Your task to perform on an android device: turn on bluetooth scan Image 0: 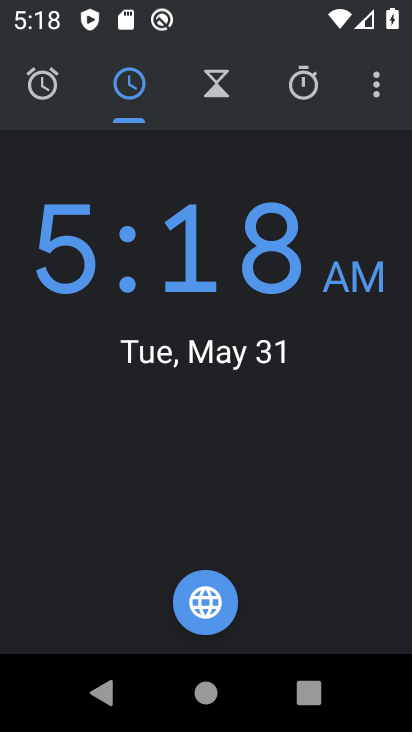
Step 0: press home button
Your task to perform on an android device: turn on bluetooth scan Image 1: 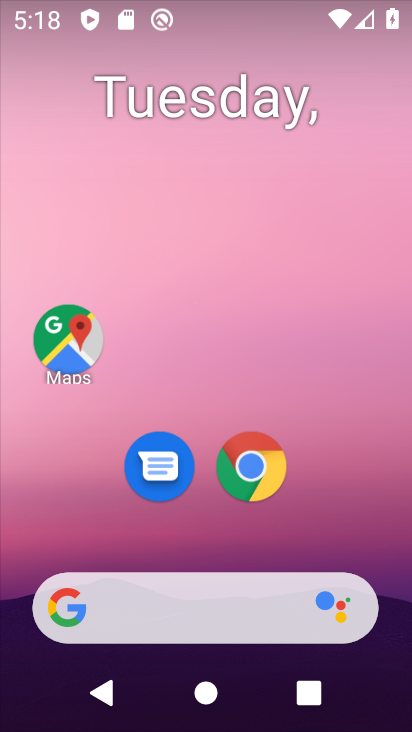
Step 1: click (275, 469)
Your task to perform on an android device: turn on bluetooth scan Image 2: 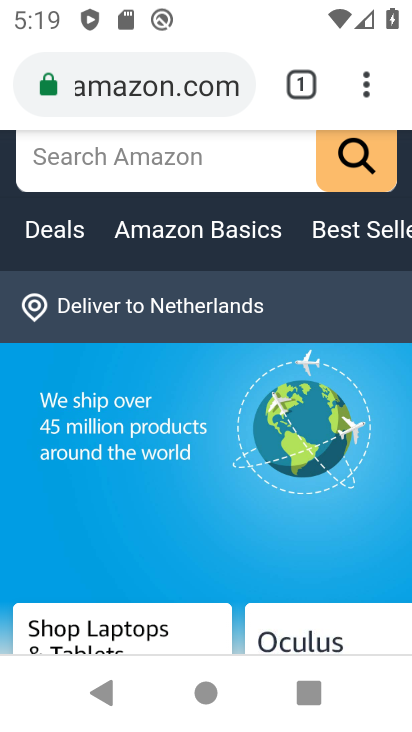
Step 2: drag from (379, 78) to (193, 527)
Your task to perform on an android device: turn on bluetooth scan Image 3: 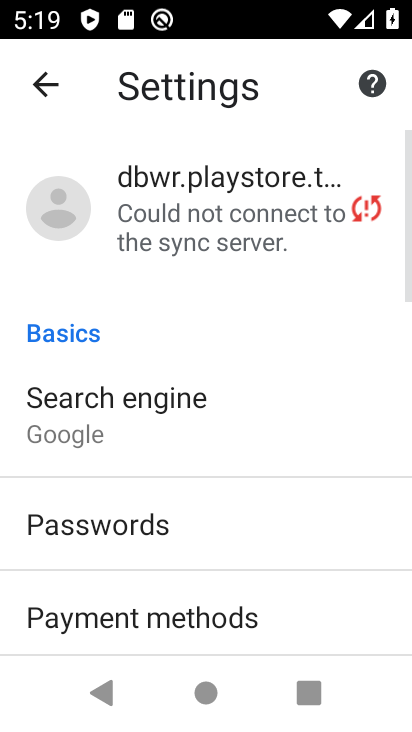
Step 3: drag from (221, 585) to (240, 98)
Your task to perform on an android device: turn on bluetooth scan Image 4: 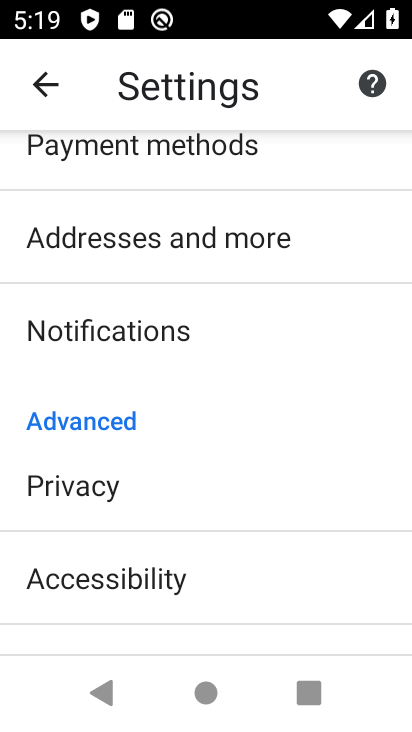
Step 4: press home button
Your task to perform on an android device: turn on bluetooth scan Image 5: 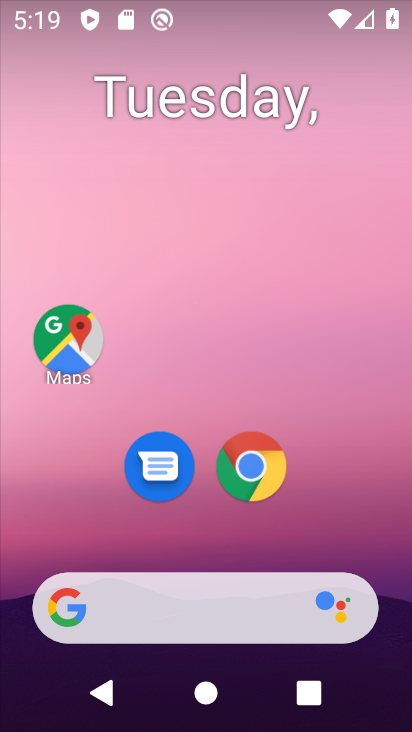
Step 5: drag from (356, 392) to (379, 161)
Your task to perform on an android device: turn on bluetooth scan Image 6: 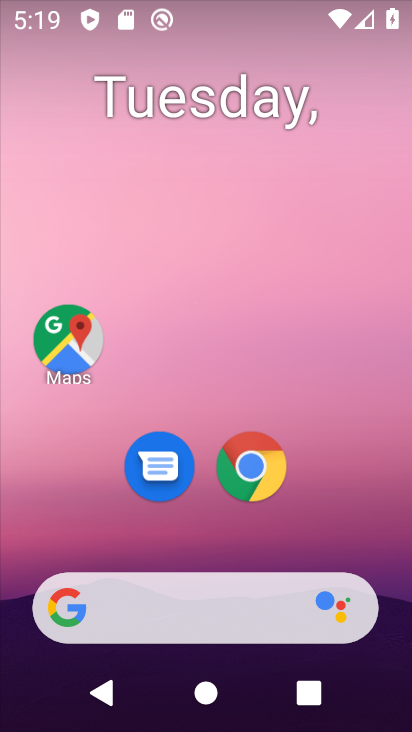
Step 6: drag from (393, 617) to (369, 221)
Your task to perform on an android device: turn on bluetooth scan Image 7: 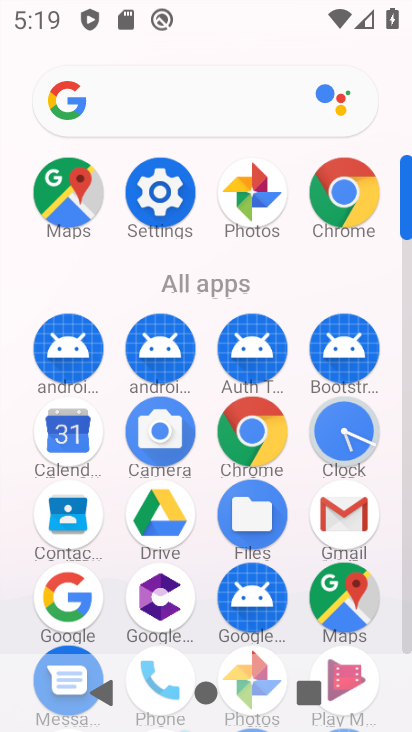
Step 7: click (150, 187)
Your task to perform on an android device: turn on bluetooth scan Image 8: 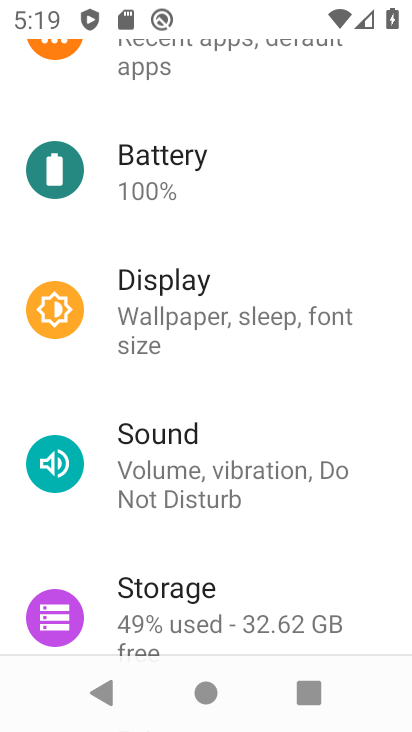
Step 8: drag from (244, 569) to (250, 138)
Your task to perform on an android device: turn on bluetooth scan Image 9: 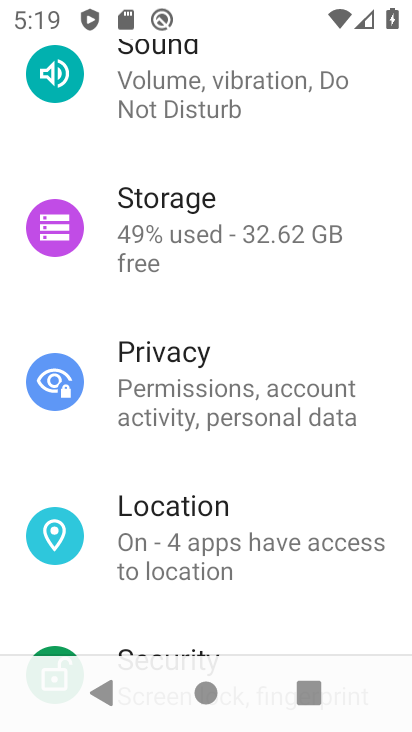
Step 9: drag from (250, 442) to (266, 197)
Your task to perform on an android device: turn on bluetooth scan Image 10: 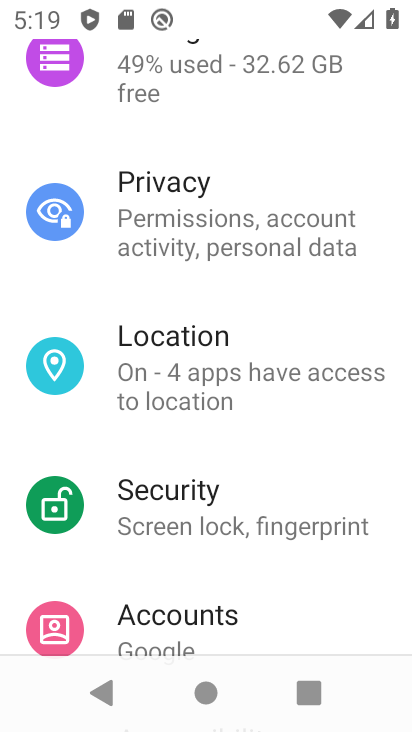
Step 10: drag from (276, 461) to (294, 210)
Your task to perform on an android device: turn on bluetooth scan Image 11: 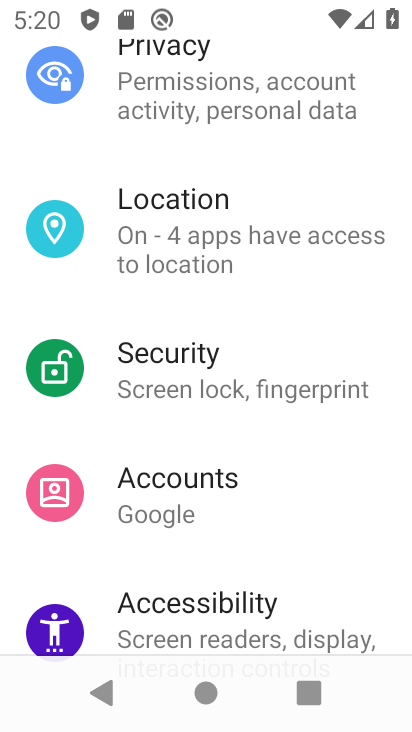
Step 11: click (182, 250)
Your task to perform on an android device: turn on bluetooth scan Image 12: 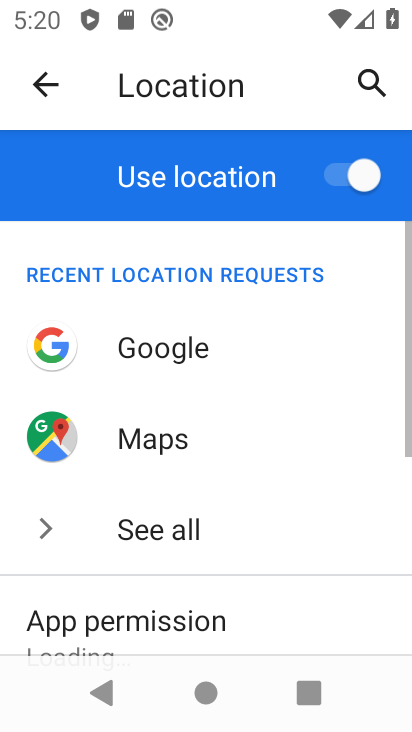
Step 12: drag from (214, 589) to (226, 206)
Your task to perform on an android device: turn on bluetooth scan Image 13: 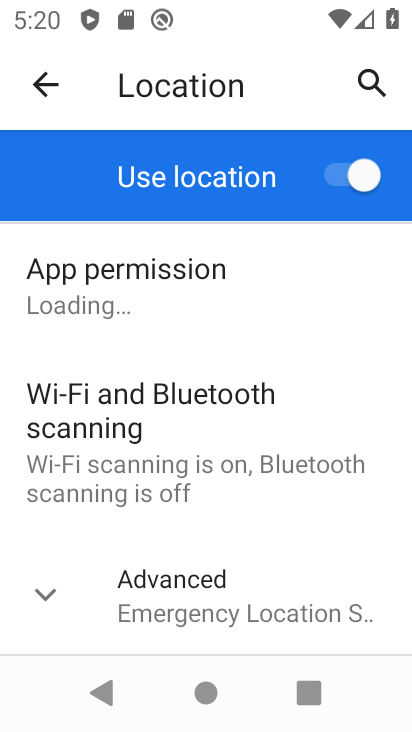
Step 13: click (191, 419)
Your task to perform on an android device: turn on bluetooth scan Image 14: 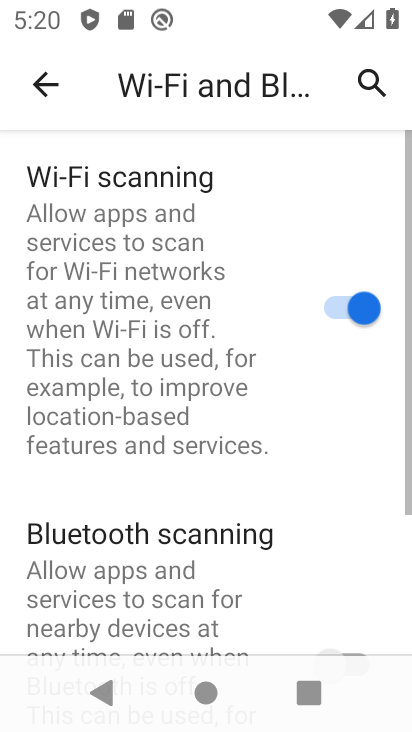
Step 14: drag from (210, 492) to (221, 286)
Your task to perform on an android device: turn on bluetooth scan Image 15: 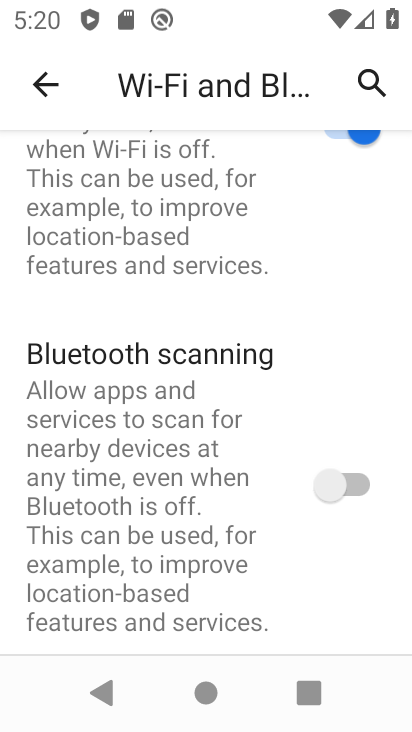
Step 15: click (238, 457)
Your task to perform on an android device: turn on bluetooth scan Image 16: 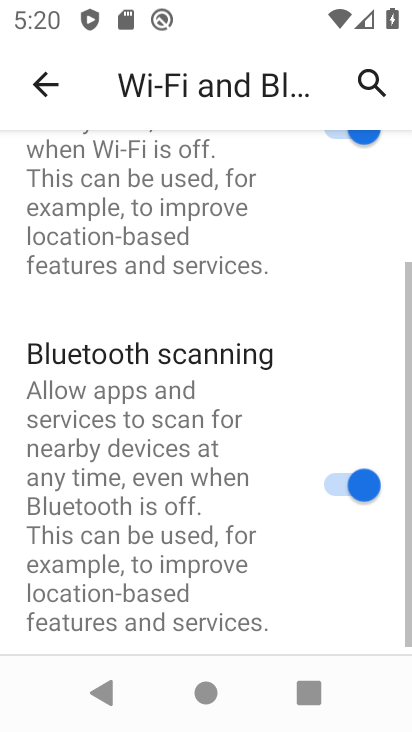
Step 16: task complete